Your task to perform on an android device: uninstall "Mercado Libre" Image 0: 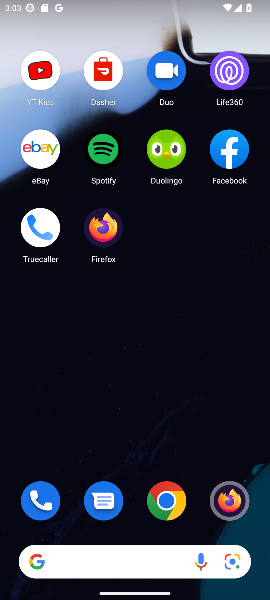
Step 0: drag from (130, 421) to (129, 59)
Your task to perform on an android device: uninstall "Mercado Libre" Image 1: 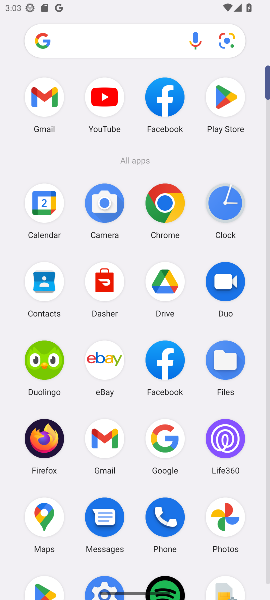
Step 1: click (217, 103)
Your task to perform on an android device: uninstall "Mercado Libre" Image 2: 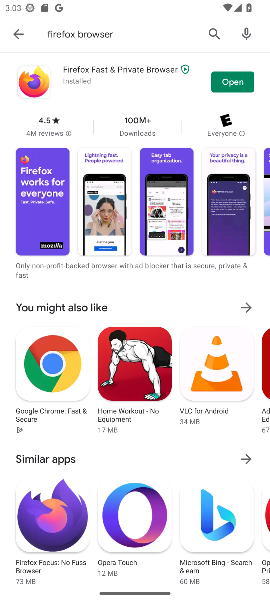
Step 2: click (208, 35)
Your task to perform on an android device: uninstall "Mercado Libre" Image 3: 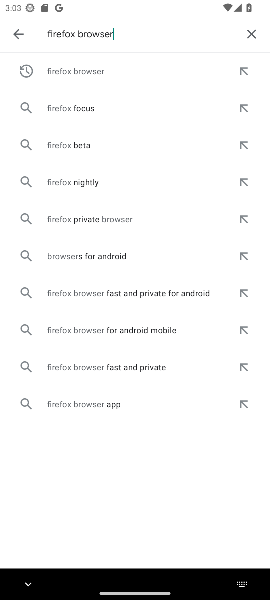
Step 3: click (255, 35)
Your task to perform on an android device: uninstall "Mercado Libre" Image 4: 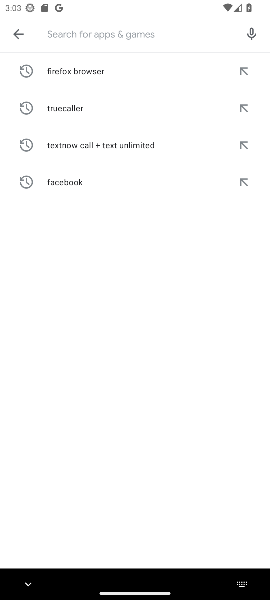
Step 4: type "Mercado Libre"
Your task to perform on an android device: uninstall "Mercado Libre" Image 5: 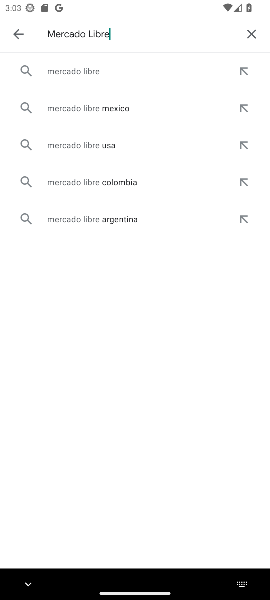
Step 5: click (74, 69)
Your task to perform on an android device: uninstall "Mercado Libre" Image 6: 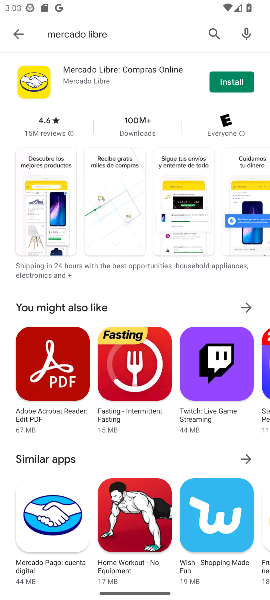
Step 6: task complete